Your task to perform on an android device: change the clock display to digital Image 0: 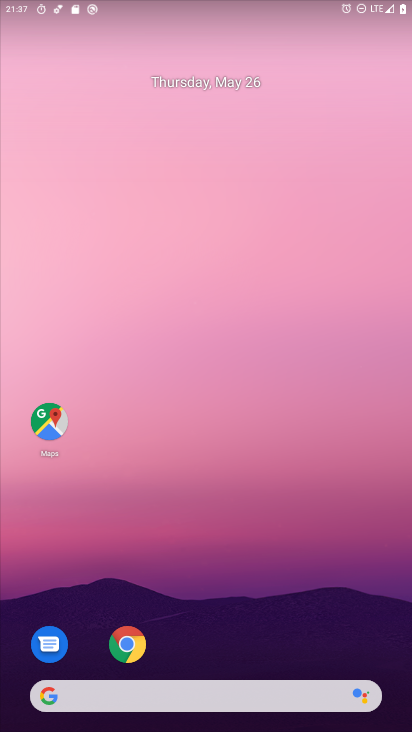
Step 0: click (189, 305)
Your task to perform on an android device: change the clock display to digital Image 1: 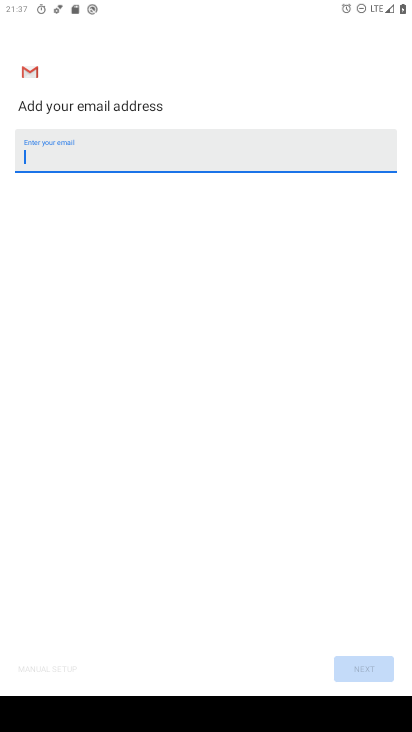
Step 1: press home button
Your task to perform on an android device: change the clock display to digital Image 2: 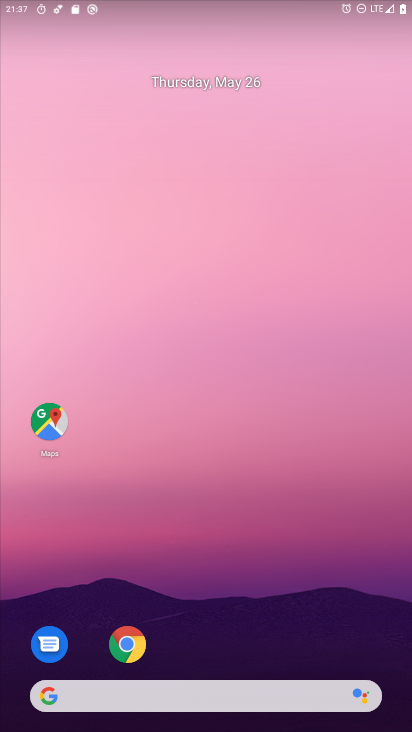
Step 2: drag from (184, 658) to (213, 323)
Your task to perform on an android device: change the clock display to digital Image 3: 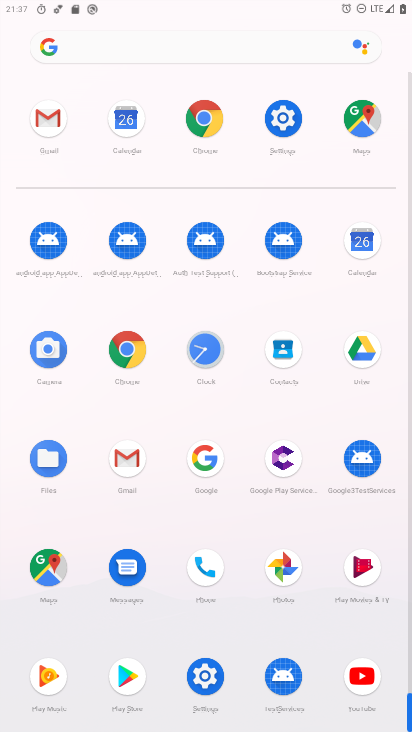
Step 3: click (195, 355)
Your task to perform on an android device: change the clock display to digital Image 4: 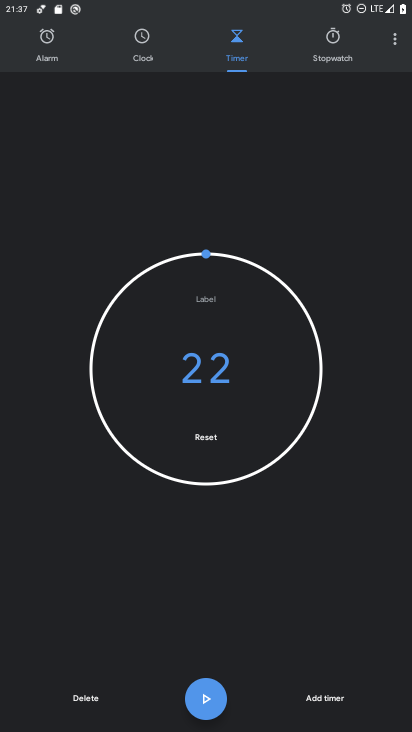
Step 4: click (386, 47)
Your task to perform on an android device: change the clock display to digital Image 5: 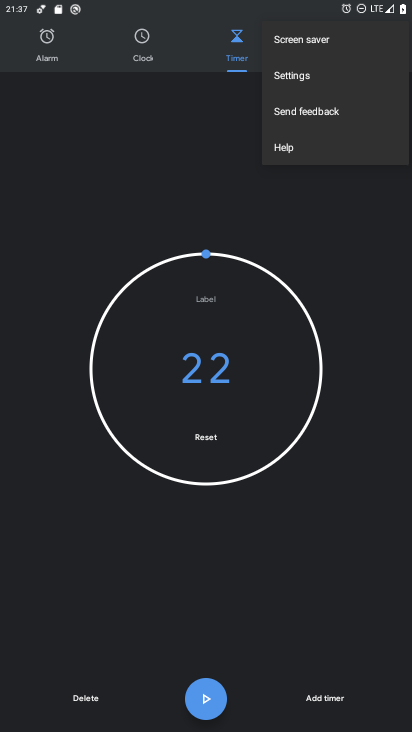
Step 5: click (309, 76)
Your task to perform on an android device: change the clock display to digital Image 6: 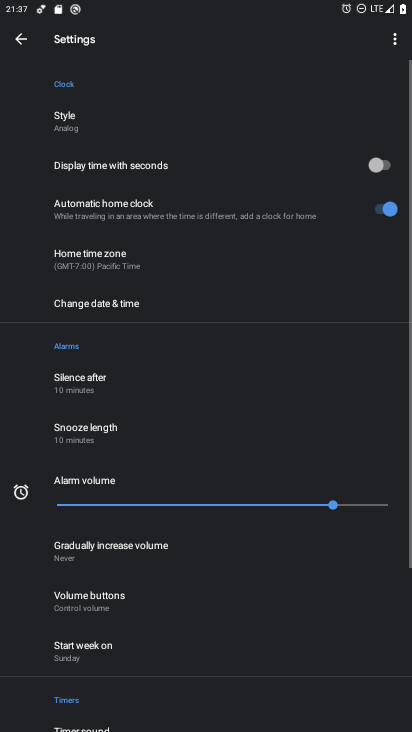
Step 6: click (92, 127)
Your task to perform on an android device: change the clock display to digital Image 7: 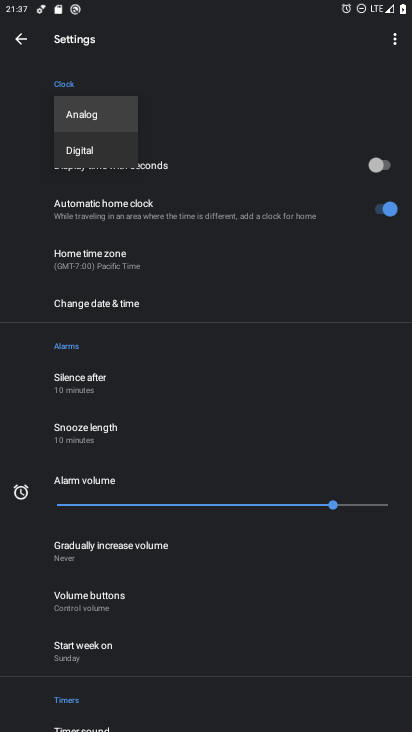
Step 7: click (87, 143)
Your task to perform on an android device: change the clock display to digital Image 8: 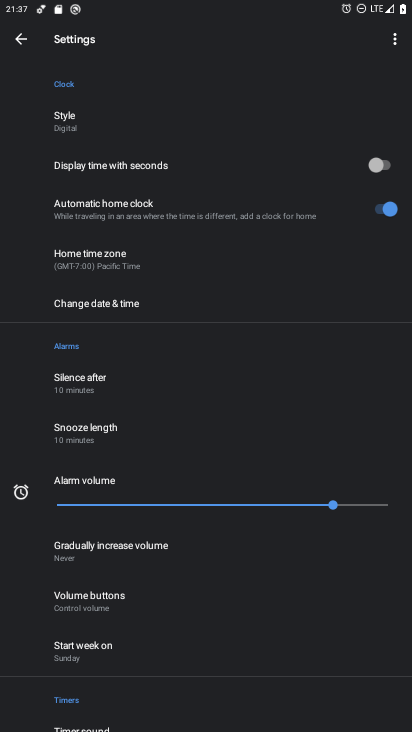
Step 8: task complete